Your task to perform on an android device: Open Amazon Image 0: 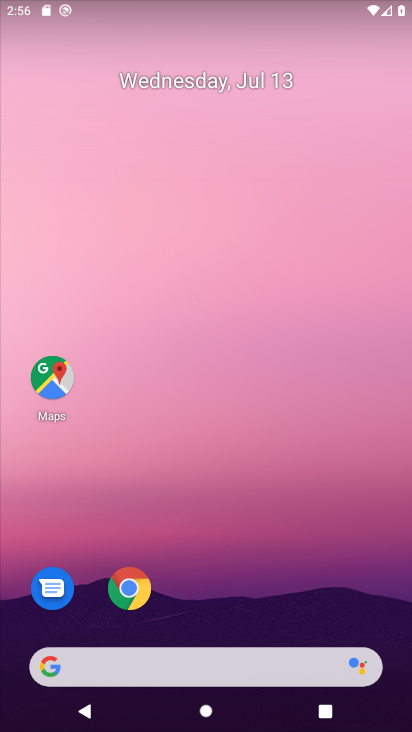
Step 0: drag from (179, 634) to (117, 173)
Your task to perform on an android device: Open Amazon Image 1: 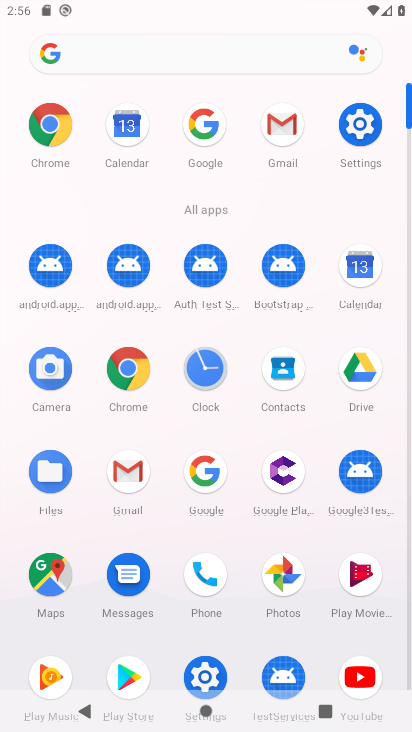
Step 1: click (23, 124)
Your task to perform on an android device: Open Amazon Image 2: 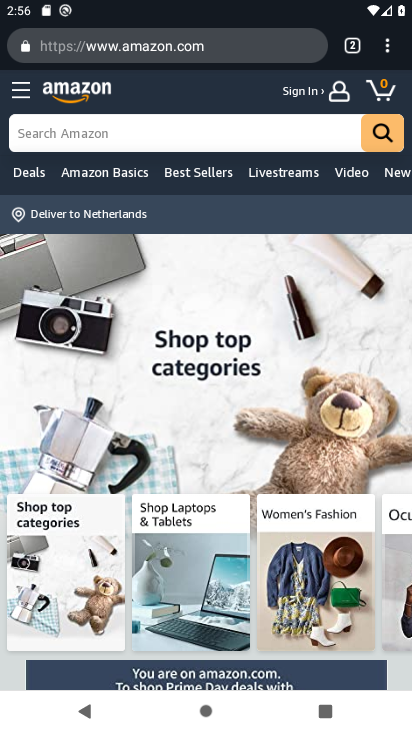
Step 2: task complete